Your task to perform on an android device: snooze an email in the gmail app Image 0: 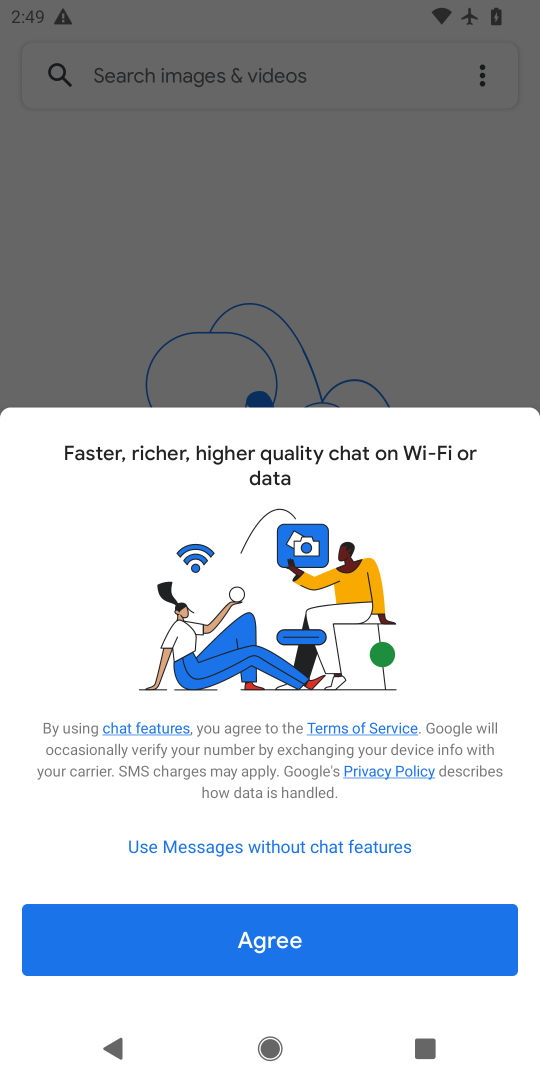
Step 0: press home button
Your task to perform on an android device: snooze an email in the gmail app Image 1: 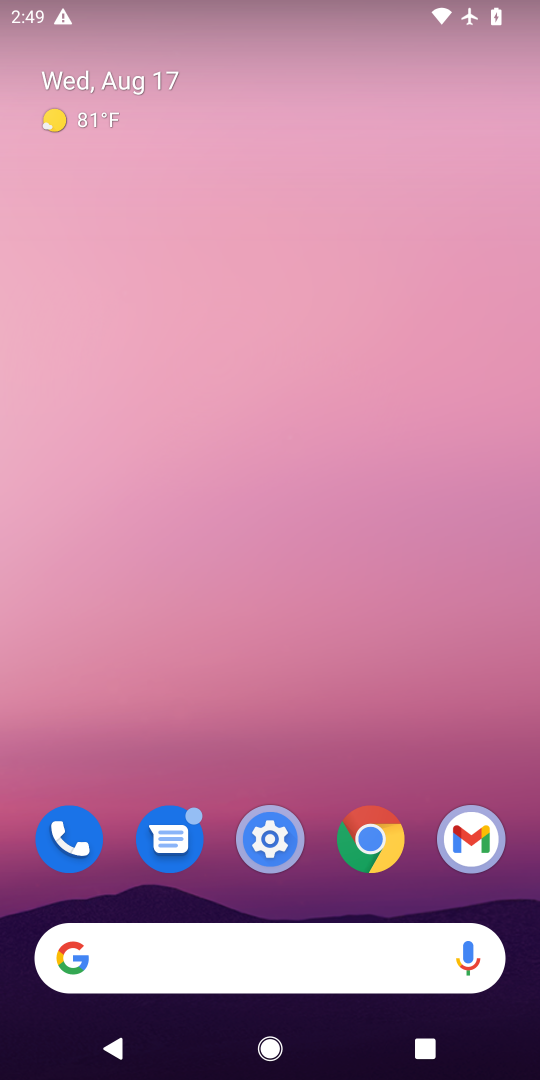
Step 1: drag from (307, 896) to (220, 98)
Your task to perform on an android device: snooze an email in the gmail app Image 2: 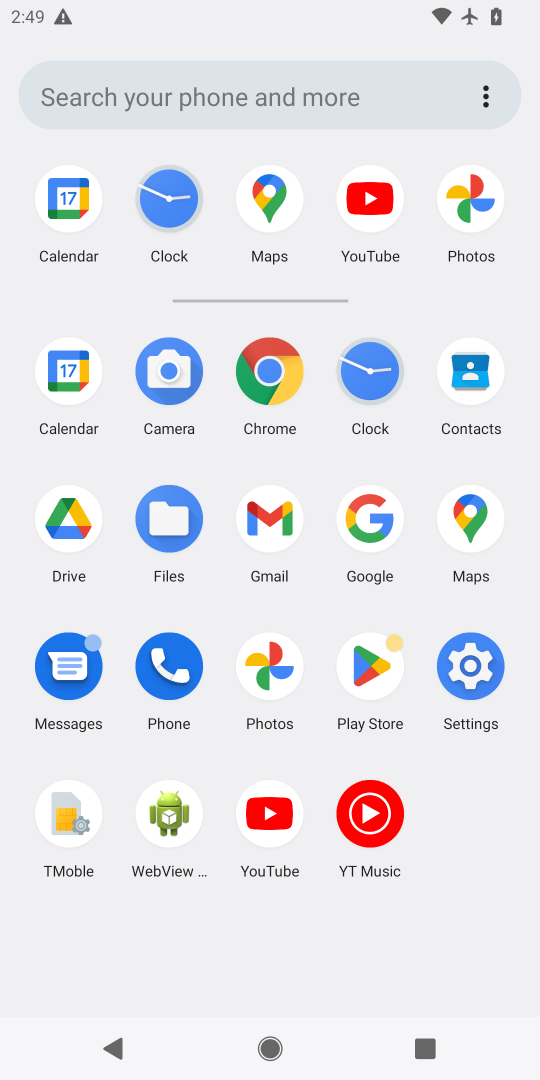
Step 2: click (266, 513)
Your task to perform on an android device: snooze an email in the gmail app Image 3: 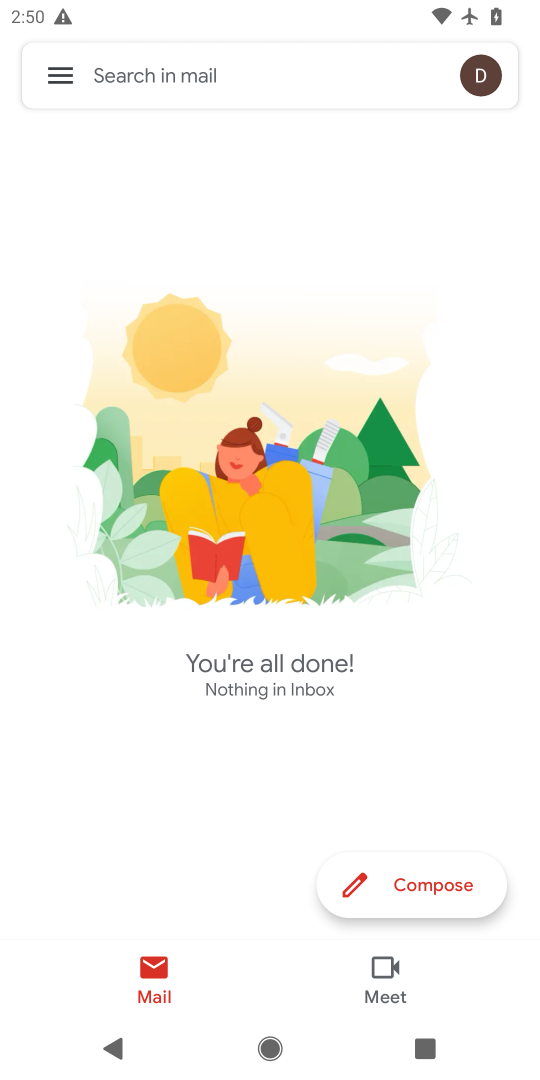
Step 3: task complete